Your task to perform on an android device: Set the phone to "Do not disturb". Image 0: 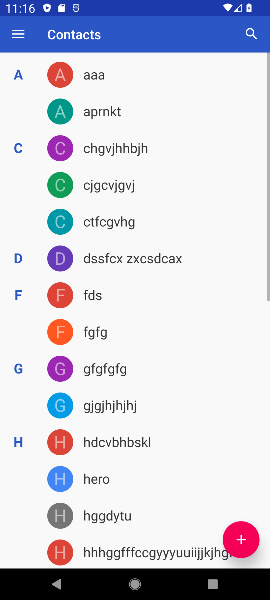
Step 0: press back button
Your task to perform on an android device: Set the phone to "Do not disturb". Image 1: 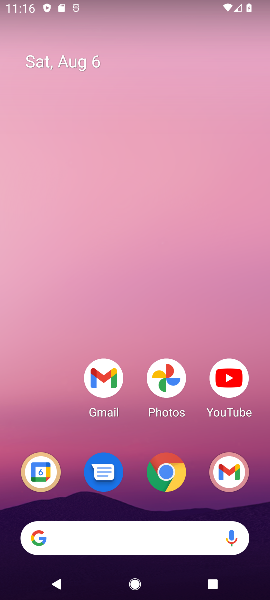
Step 1: drag from (177, 532) to (60, 68)
Your task to perform on an android device: Set the phone to "Do not disturb". Image 2: 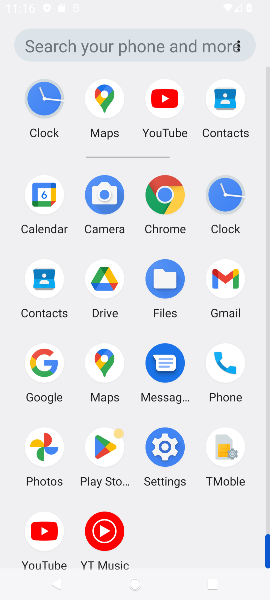
Step 2: drag from (130, 378) to (89, 156)
Your task to perform on an android device: Set the phone to "Do not disturb". Image 3: 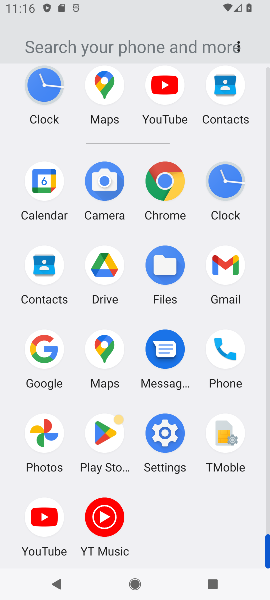
Step 3: click (165, 417)
Your task to perform on an android device: Set the phone to "Do not disturb". Image 4: 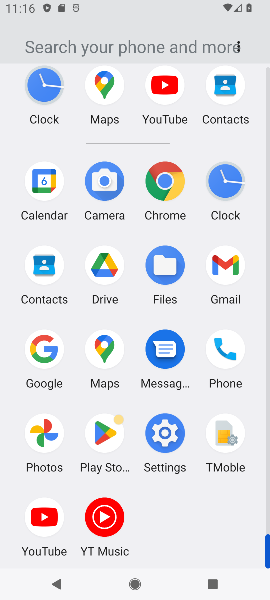
Step 4: click (165, 423)
Your task to perform on an android device: Set the phone to "Do not disturb". Image 5: 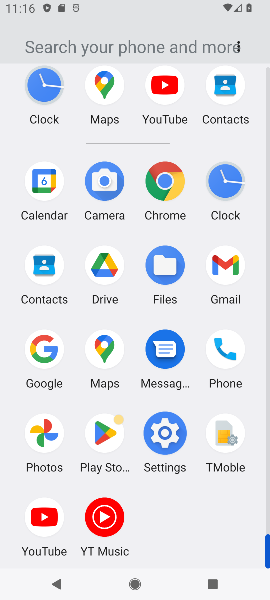
Step 5: click (162, 428)
Your task to perform on an android device: Set the phone to "Do not disturb". Image 6: 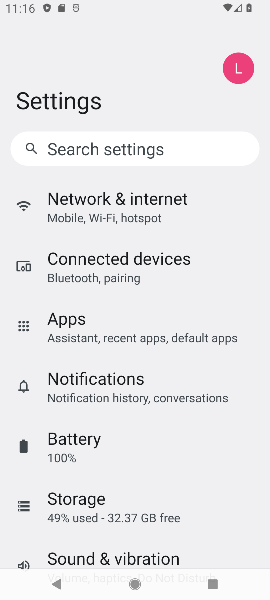
Step 6: drag from (101, 474) to (48, 210)
Your task to perform on an android device: Set the phone to "Do not disturb". Image 7: 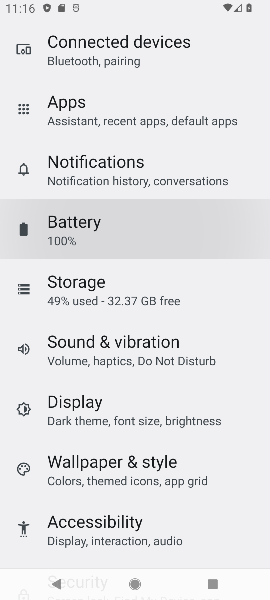
Step 7: drag from (117, 372) to (117, 337)
Your task to perform on an android device: Set the phone to "Do not disturb". Image 8: 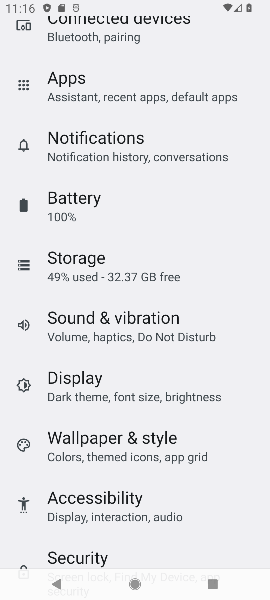
Step 8: click (103, 333)
Your task to perform on an android device: Set the phone to "Do not disturb". Image 9: 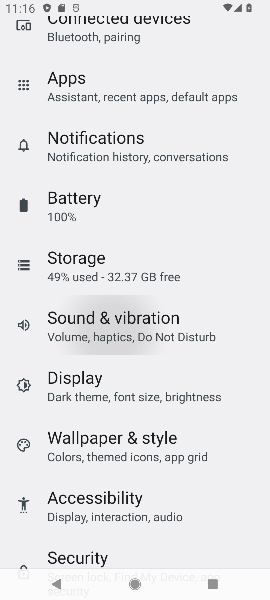
Step 9: click (98, 330)
Your task to perform on an android device: Set the phone to "Do not disturb". Image 10: 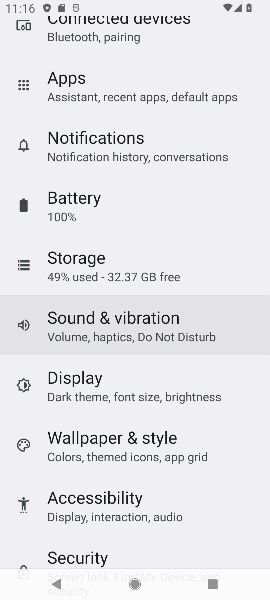
Step 10: click (100, 328)
Your task to perform on an android device: Set the phone to "Do not disturb". Image 11: 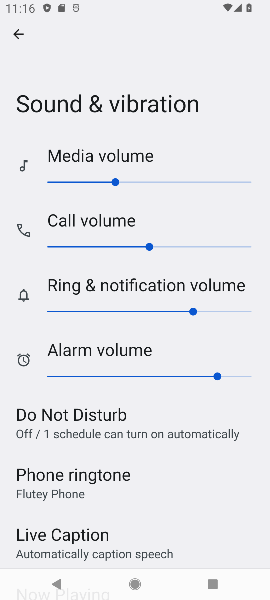
Step 11: click (74, 420)
Your task to perform on an android device: Set the phone to "Do not disturb". Image 12: 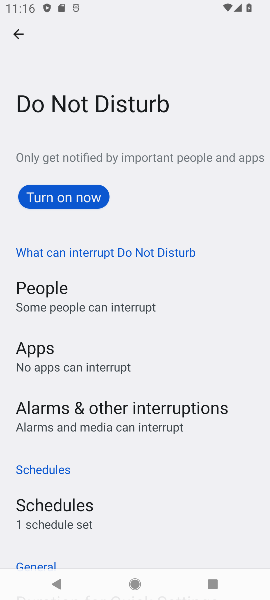
Step 12: click (64, 201)
Your task to perform on an android device: Set the phone to "Do not disturb". Image 13: 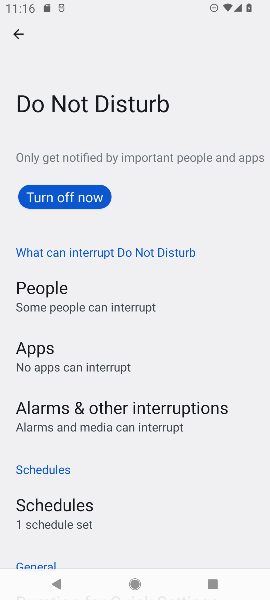
Step 13: task complete